Your task to perform on an android device: Open the phone app and click the voicemail tab. Image 0: 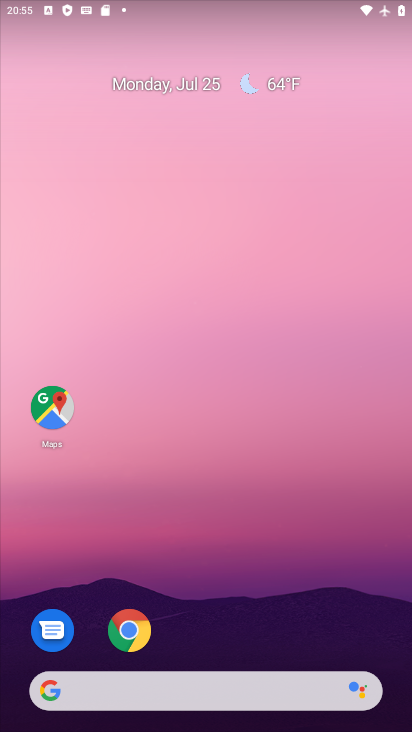
Step 0: drag from (357, 631) to (342, 117)
Your task to perform on an android device: Open the phone app and click the voicemail tab. Image 1: 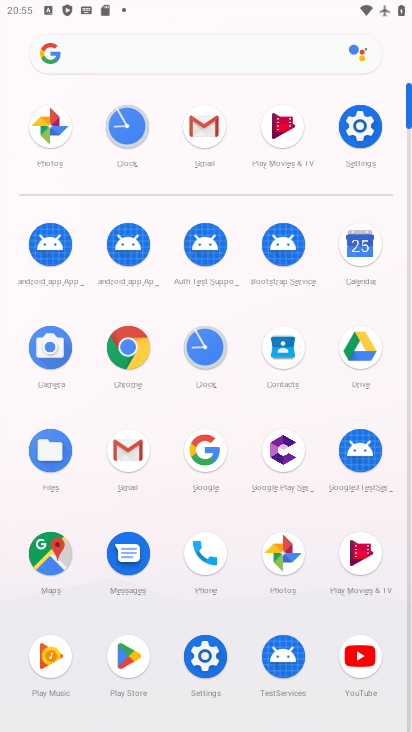
Step 1: click (202, 548)
Your task to perform on an android device: Open the phone app and click the voicemail tab. Image 2: 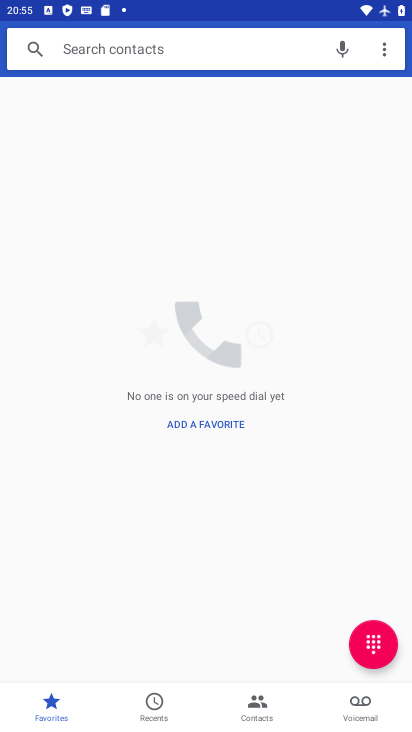
Step 2: click (360, 706)
Your task to perform on an android device: Open the phone app and click the voicemail tab. Image 3: 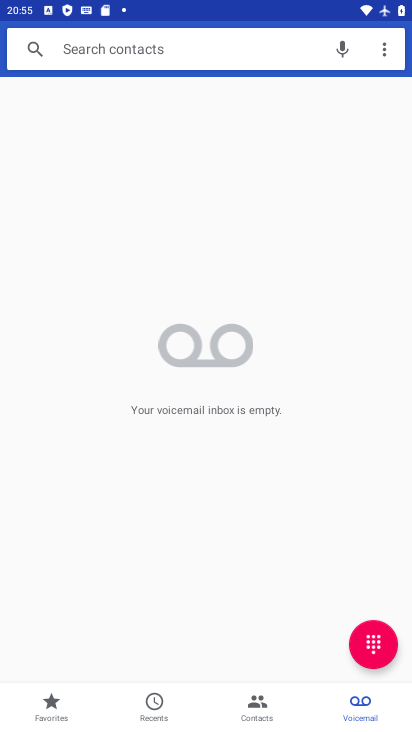
Step 3: task complete